Your task to perform on an android device: Go to wifi settings Image 0: 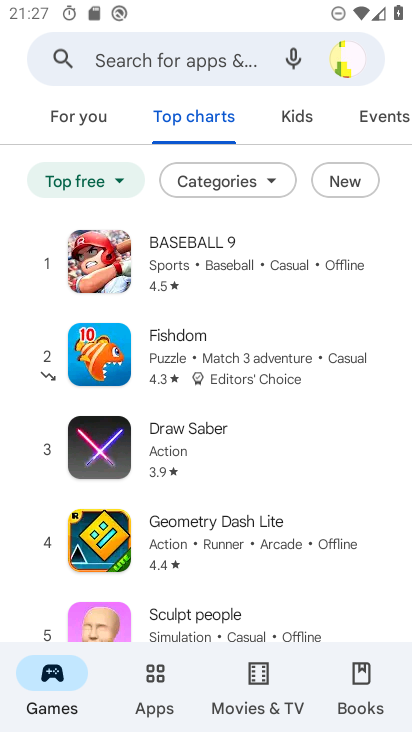
Step 0: press home button
Your task to perform on an android device: Go to wifi settings Image 1: 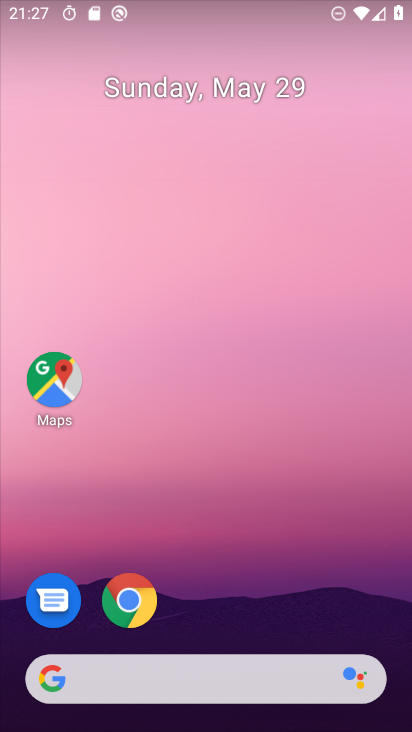
Step 1: drag from (345, 607) to (285, 146)
Your task to perform on an android device: Go to wifi settings Image 2: 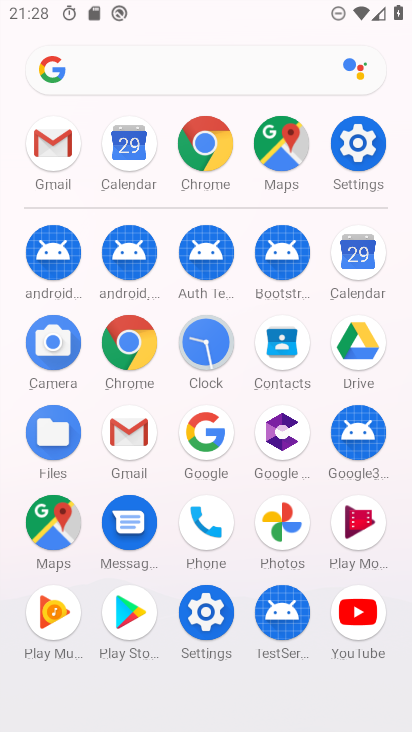
Step 2: click (348, 139)
Your task to perform on an android device: Go to wifi settings Image 3: 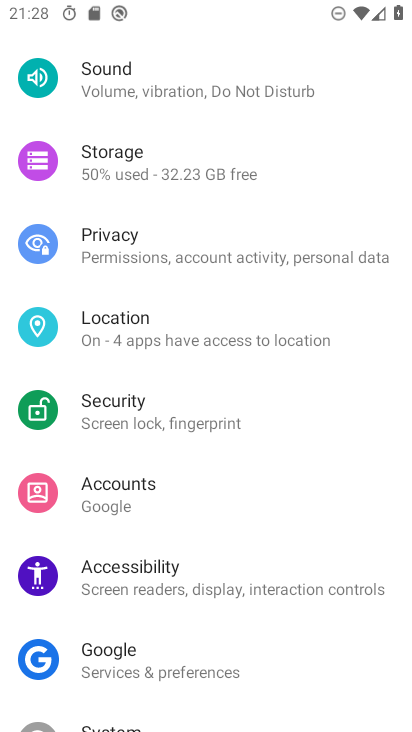
Step 3: drag from (229, 155) to (209, 617)
Your task to perform on an android device: Go to wifi settings Image 4: 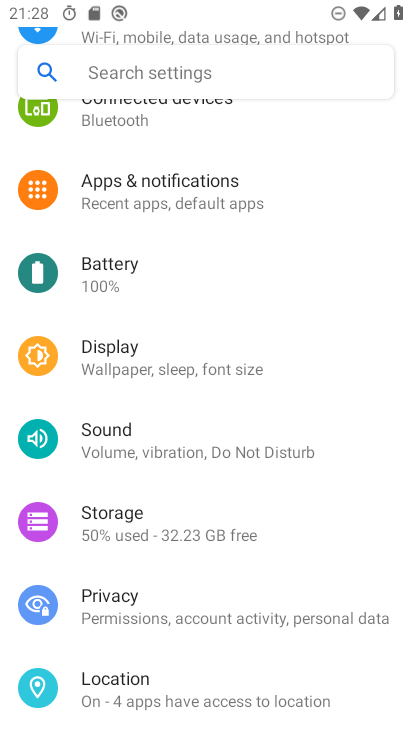
Step 4: drag from (279, 168) to (264, 632)
Your task to perform on an android device: Go to wifi settings Image 5: 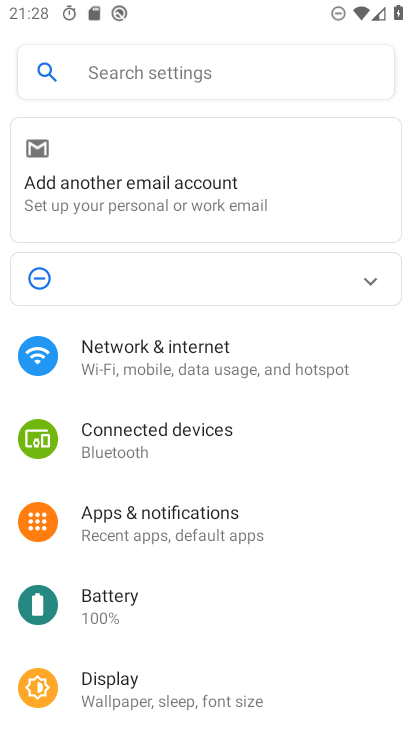
Step 5: click (240, 368)
Your task to perform on an android device: Go to wifi settings Image 6: 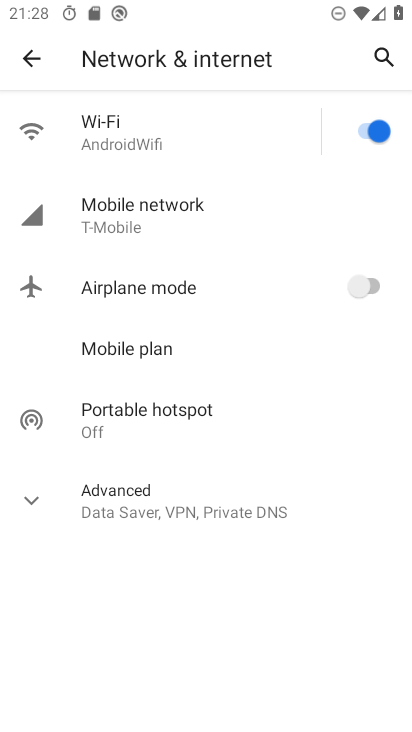
Step 6: task complete